Your task to perform on an android device: open device folders in google photos Image 0: 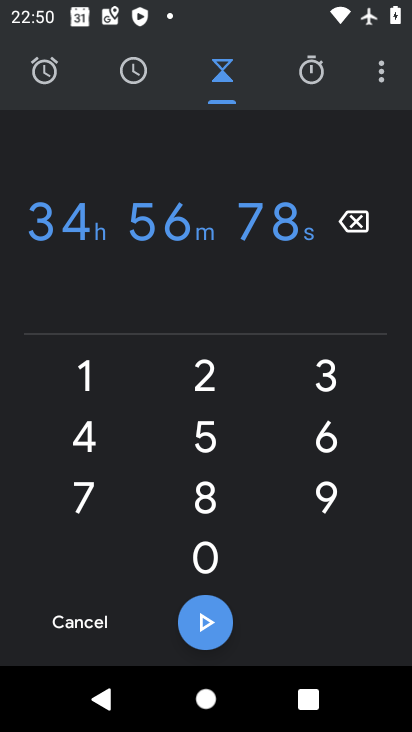
Step 0: press home button
Your task to perform on an android device: open device folders in google photos Image 1: 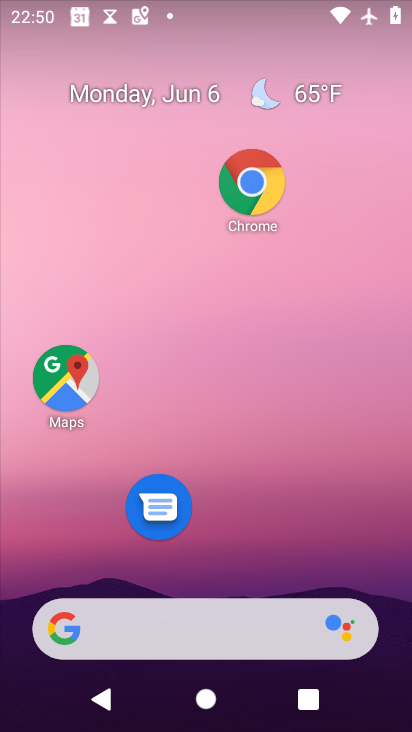
Step 1: drag from (246, 562) to (269, 292)
Your task to perform on an android device: open device folders in google photos Image 2: 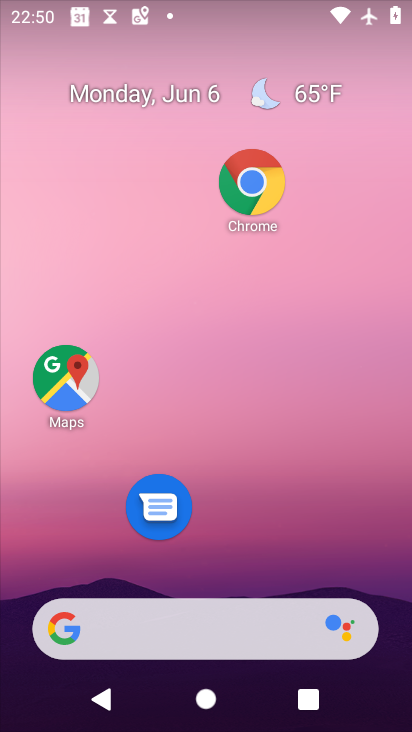
Step 2: drag from (218, 553) to (249, 233)
Your task to perform on an android device: open device folders in google photos Image 3: 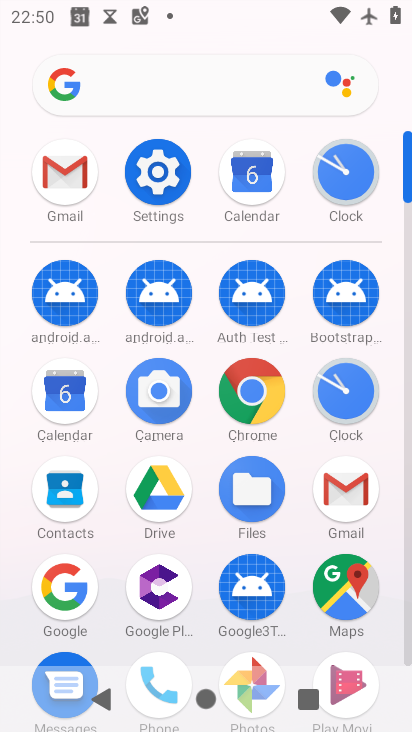
Step 3: click (257, 663)
Your task to perform on an android device: open device folders in google photos Image 4: 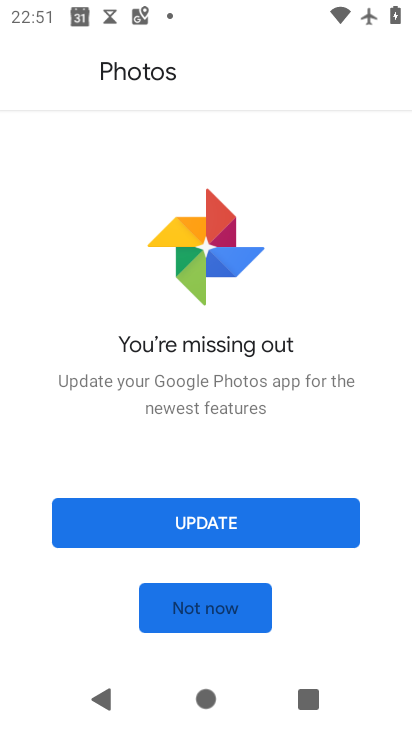
Step 4: click (203, 608)
Your task to perform on an android device: open device folders in google photos Image 5: 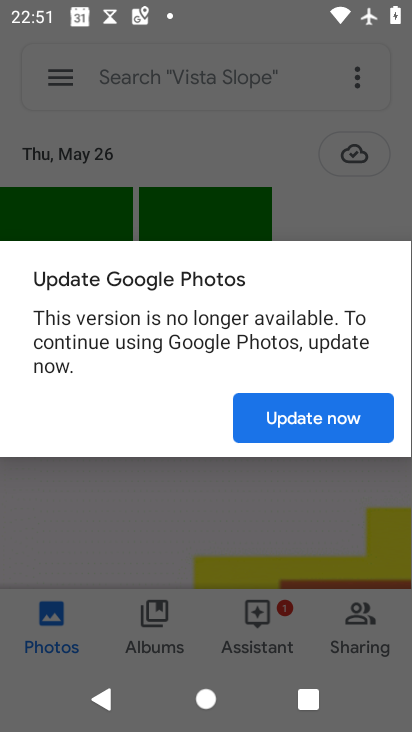
Step 5: click (291, 411)
Your task to perform on an android device: open device folders in google photos Image 6: 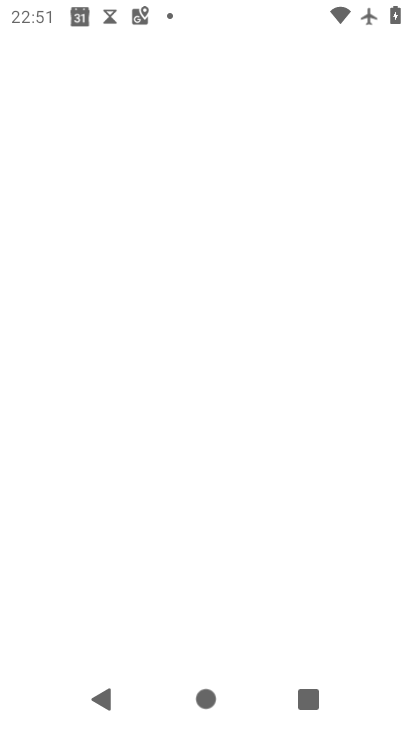
Step 6: task complete